Your task to perform on an android device: turn pop-ups on in chrome Image 0: 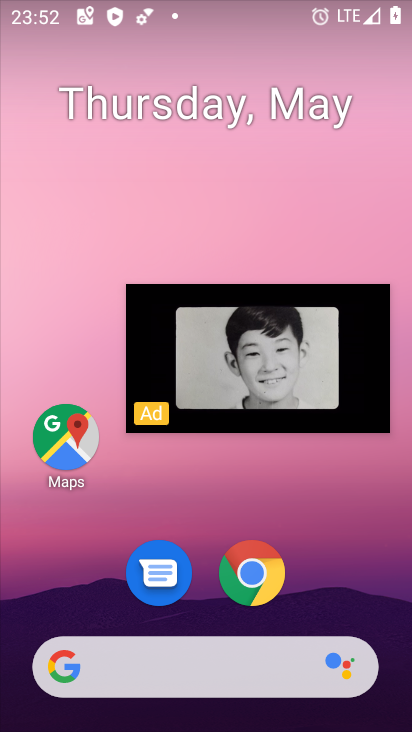
Step 0: click (352, 308)
Your task to perform on an android device: turn pop-ups on in chrome Image 1: 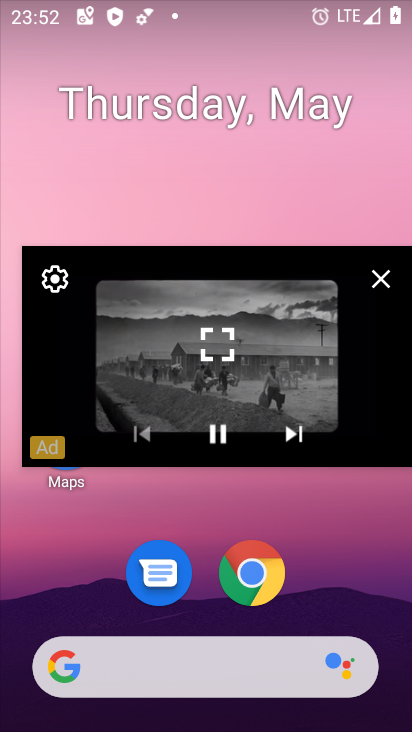
Step 1: click (379, 282)
Your task to perform on an android device: turn pop-ups on in chrome Image 2: 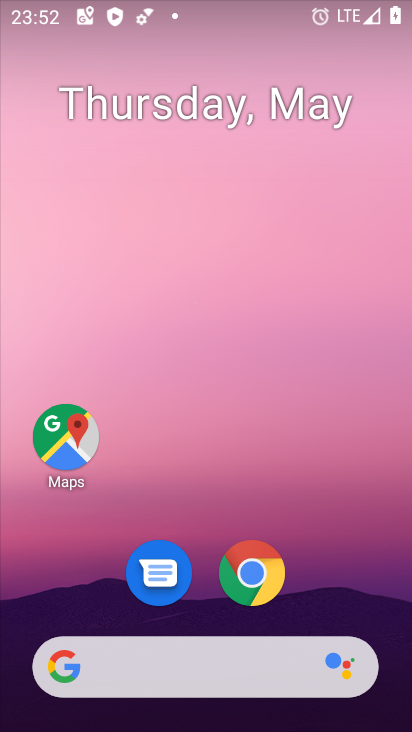
Step 2: click (247, 570)
Your task to perform on an android device: turn pop-ups on in chrome Image 3: 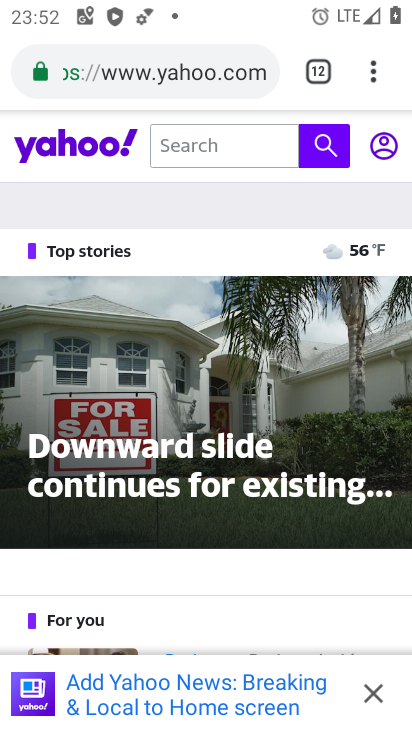
Step 3: click (370, 74)
Your task to perform on an android device: turn pop-ups on in chrome Image 4: 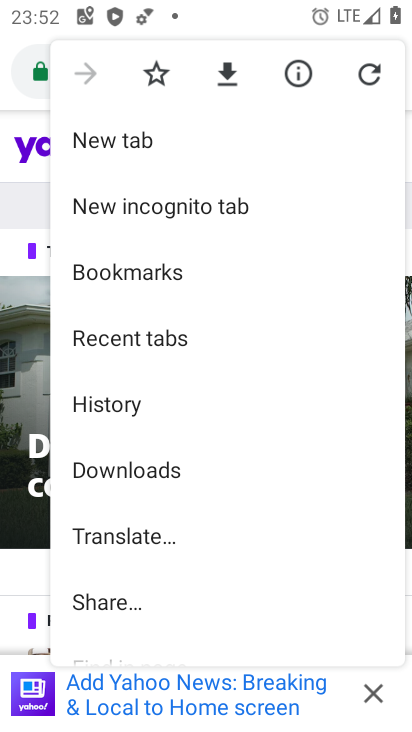
Step 4: drag from (256, 586) to (250, 297)
Your task to perform on an android device: turn pop-ups on in chrome Image 5: 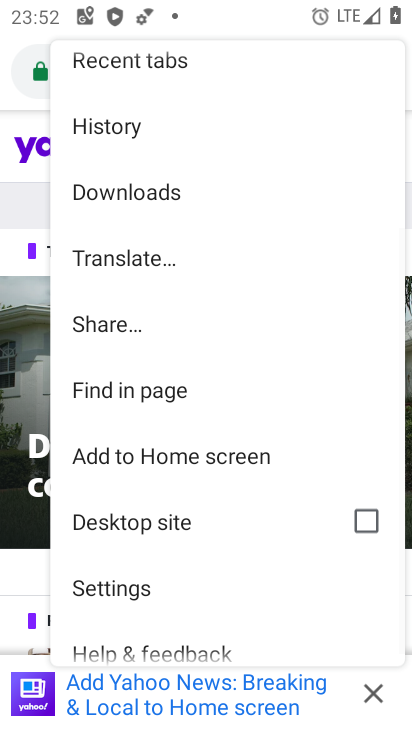
Step 5: drag from (237, 533) to (242, 289)
Your task to perform on an android device: turn pop-ups on in chrome Image 6: 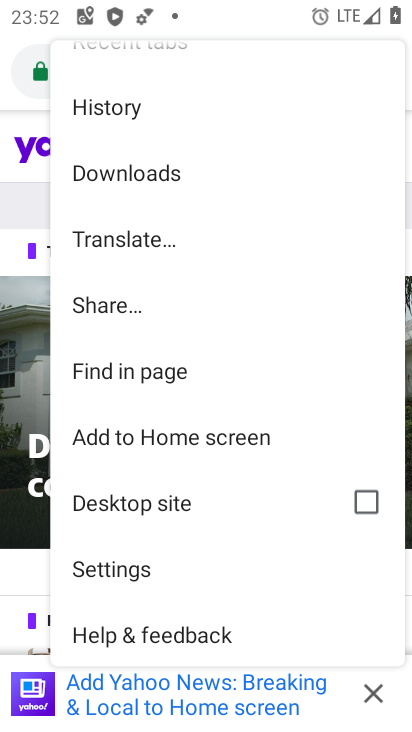
Step 6: click (161, 561)
Your task to perform on an android device: turn pop-ups on in chrome Image 7: 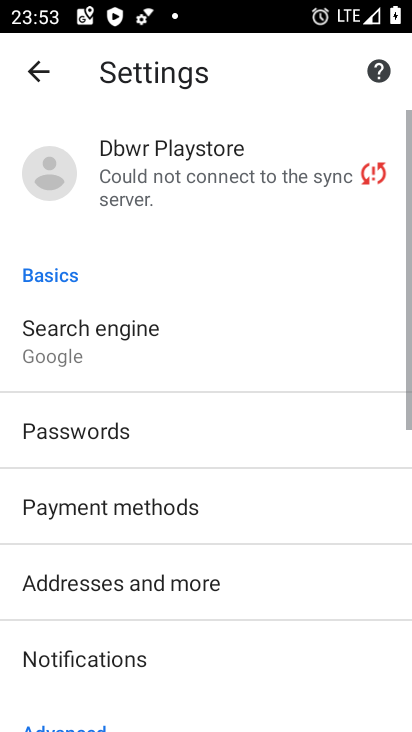
Step 7: drag from (211, 623) to (200, 342)
Your task to perform on an android device: turn pop-ups on in chrome Image 8: 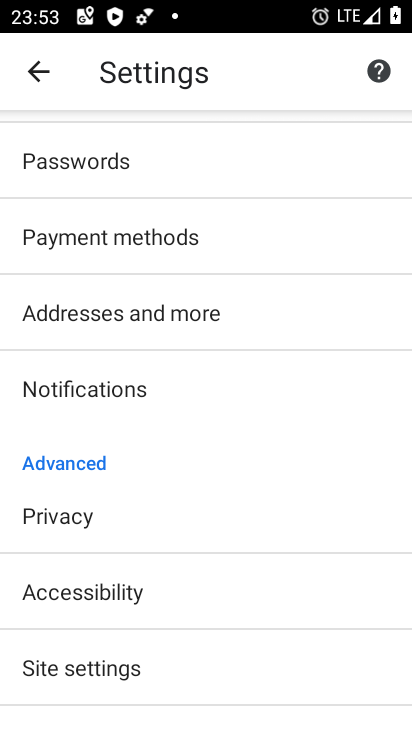
Step 8: drag from (186, 562) to (203, 320)
Your task to perform on an android device: turn pop-ups on in chrome Image 9: 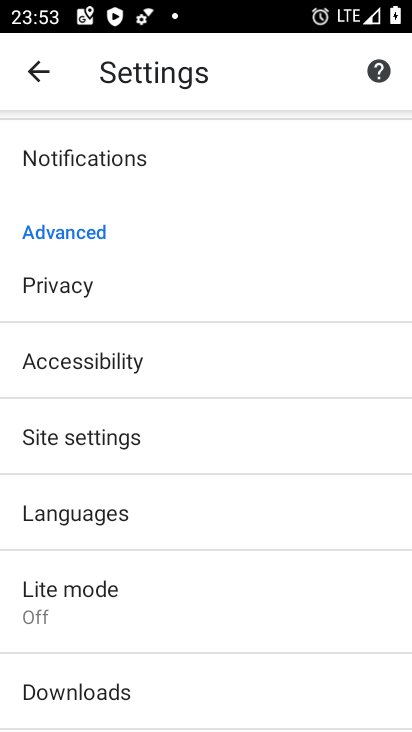
Step 9: drag from (196, 614) to (202, 435)
Your task to perform on an android device: turn pop-ups on in chrome Image 10: 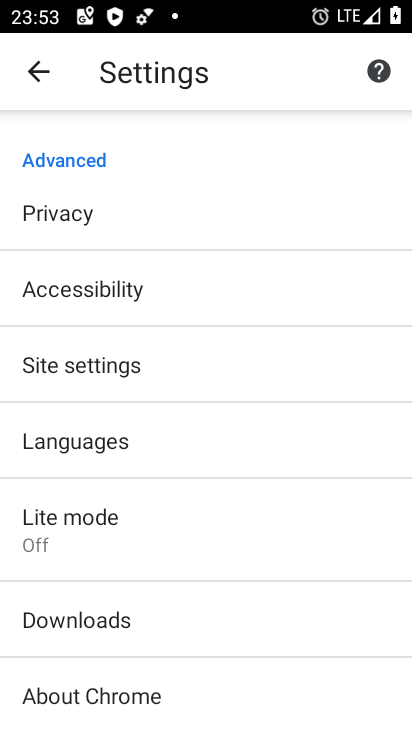
Step 10: drag from (187, 581) to (213, 352)
Your task to perform on an android device: turn pop-ups on in chrome Image 11: 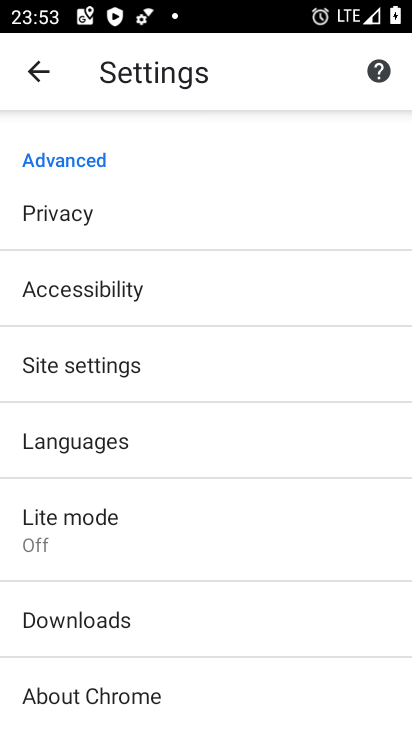
Step 11: drag from (195, 586) to (181, 327)
Your task to perform on an android device: turn pop-ups on in chrome Image 12: 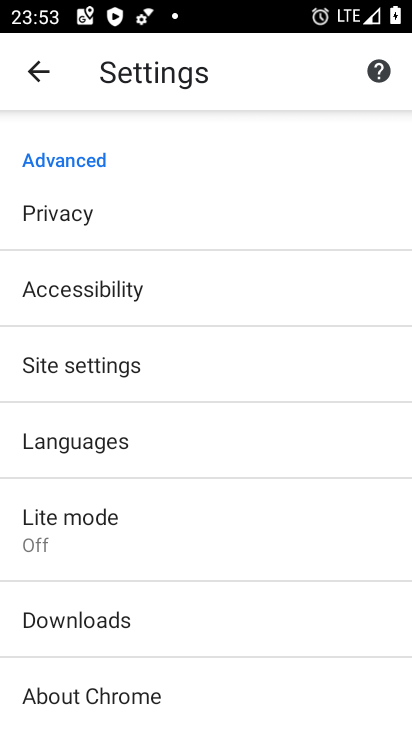
Step 12: drag from (193, 610) to (212, 429)
Your task to perform on an android device: turn pop-ups on in chrome Image 13: 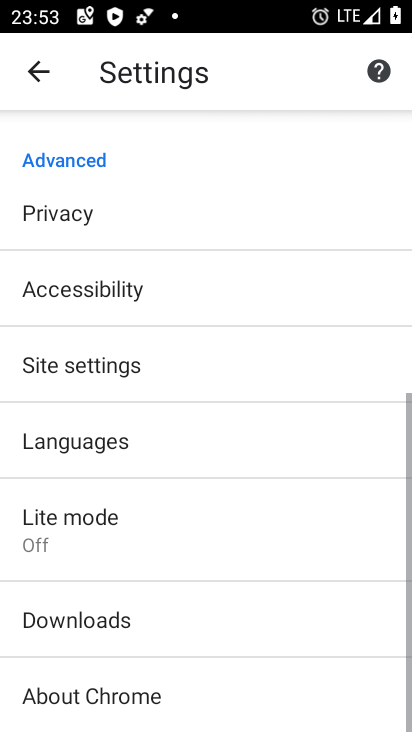
Step 13: drag from (232, 620) to (227, 395)
Your task to perform on an android device: turn pop-ups on in chrome Image 14: 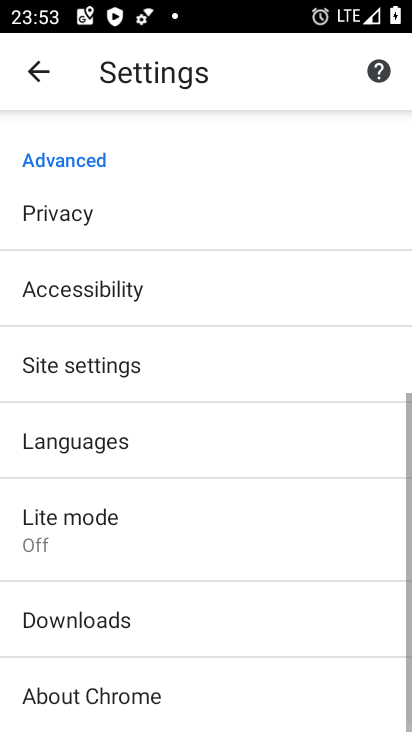
Step 14: click (209, 371)
Your task to perform on an android device: turn pop-ups on in chrome Image 15: 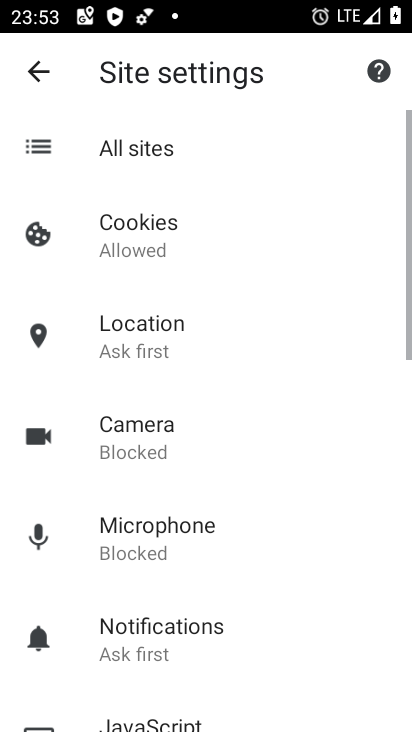
Step 15: drag from (218, 674) to (224, 400)
Your task to perform on an android device: turn pop-ups on in chrome Image 16: 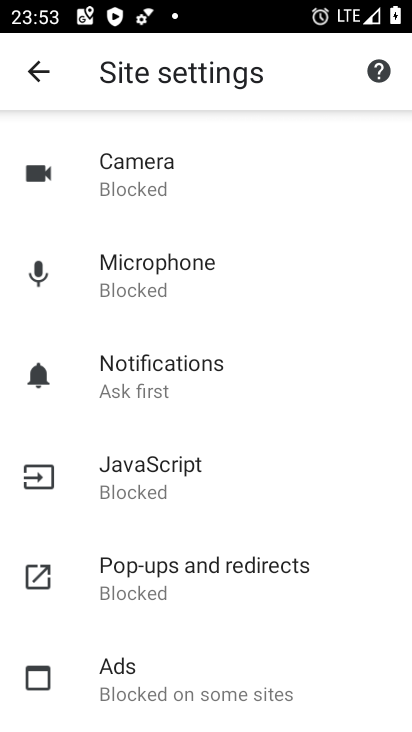
Step 16: click (207, 581)
Your task to perform on an android device: turn pop-ups on in chrome Image 17: 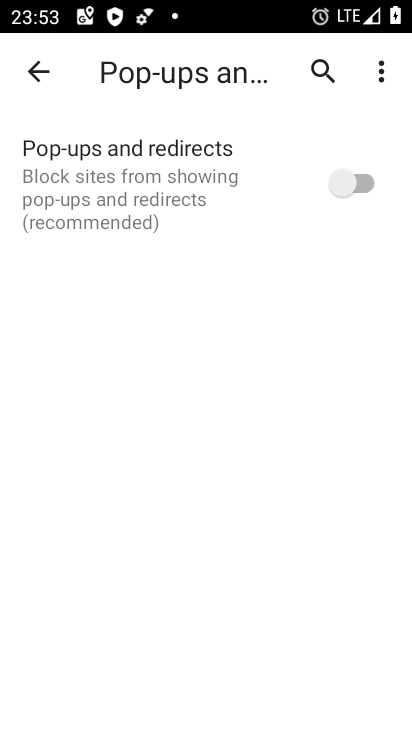
Step 17: click (367, 178)
Your task to perform on an android device: turn pop-ups on in chrome Image 18: 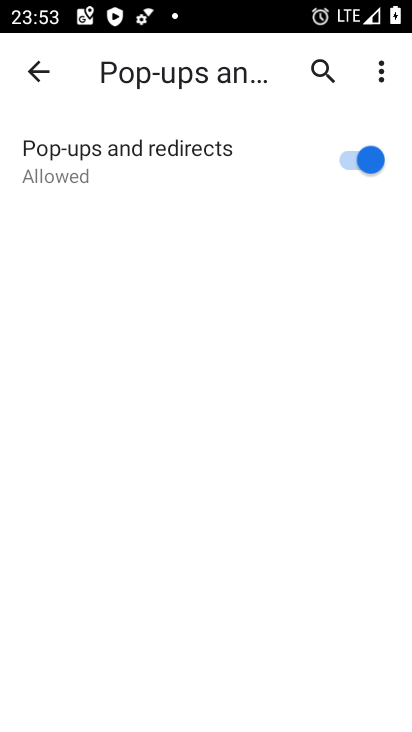
Step 18: task complete